Your task to perform on an android device: Turn off notifications for the Google Maps app Image 0: 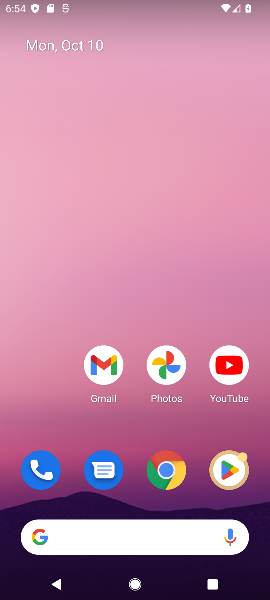
Step 0: drag from (124, 505) to (141, 73)
Your task to perform on an android device: Turn off notifications for the Google Maps app Image 1: 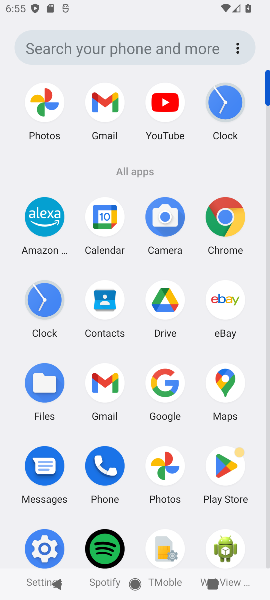
Step 1: click (42, 544)
Your task to perform on an android device: Turn off notifications for the Google Maps app Image 2: 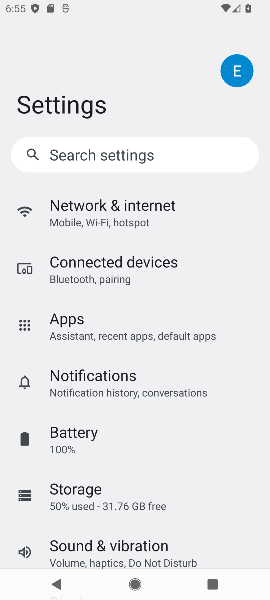
Step 2: click (99, 371)
Your task to perform on an android device: Turn off notifications for the Google Maps app Image 3: 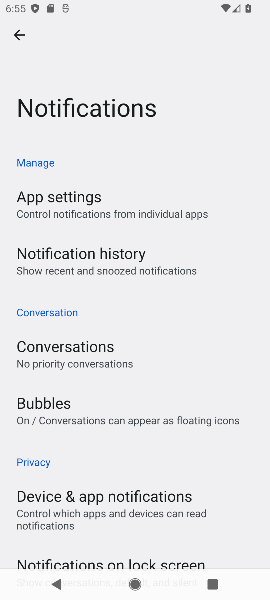
Step 3: click (65, 206)
Your task to perform on an android device: Turn off notifications for the Google Maps app Image 4: 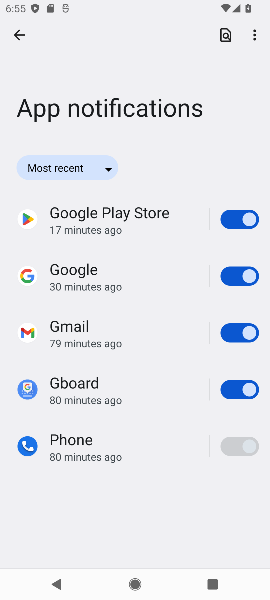
Step 4: click (72, 172)
Your task to perform on an android device: Turn off notifications for the Google Maps app Image 5: 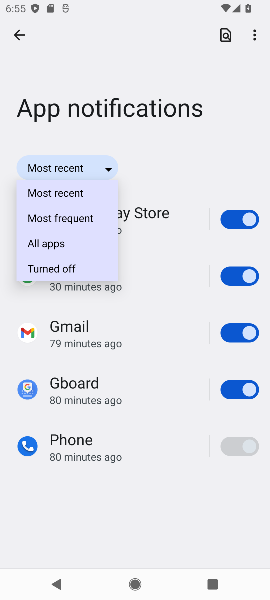
Step 5: click (56, 239)
Your task to perform on an android device: Turn off notifications for the Google Maps app Image 6: 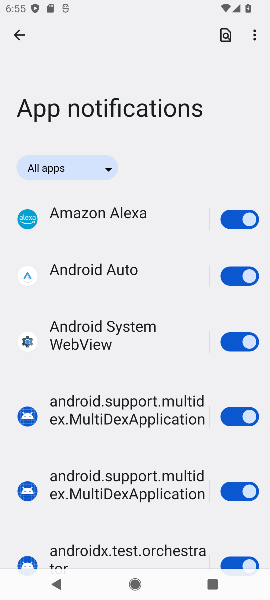
Step 6: drag from (69, 542) to (142, 107)
Your task to perform on an android device: Turn off notifications for the Google Maps app Image 7: 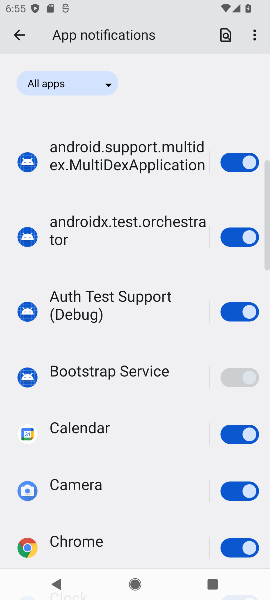
Step 7: drag from (108, 509) to (207, 79)
Your task to perform on an android device: Turn off notifications for the Google Maps app Image 8: 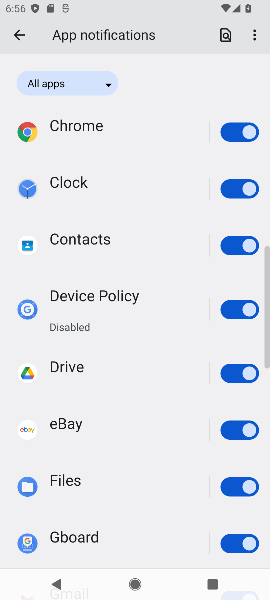
Step 8: drag from (89, 510) to (197, 37)
Your task to perform on an android device: Turn off notifications for the Google Maps app Image 9: 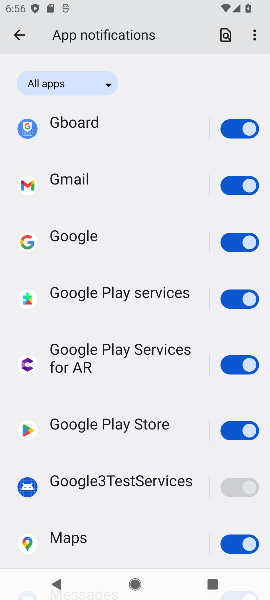
Step 9: click (231, 544)
Your task to perform on an android device: Turn off notifications for the Google Maps app Image 10: 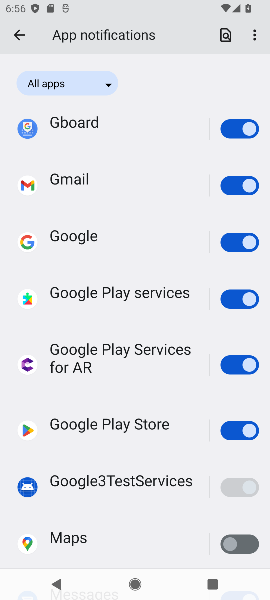
Step 10: task complete